Your task to perform on an android device: toggle improve location accuracy Image 0: 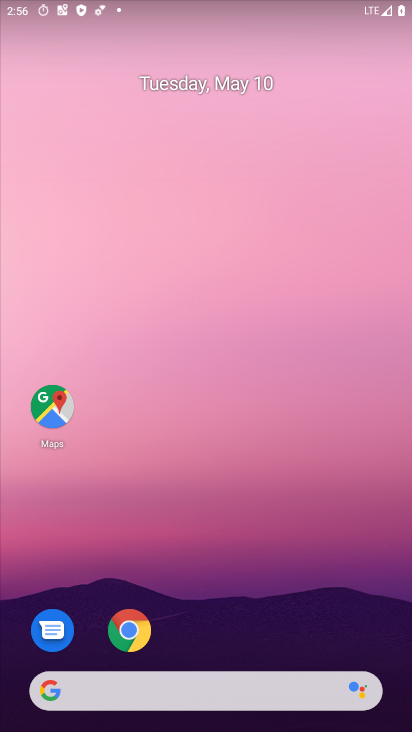
Step 0: drag from (166, 574) to (285, 176)
Your task to perform on an android device: toggle improve location accuracy Image 1: 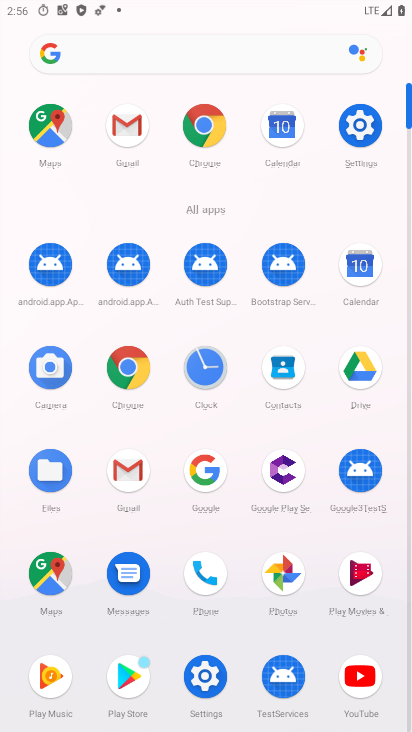
Step 1: click (209, 131)
Your task to perform on an android device: toggle improve location accuracy Image 2: 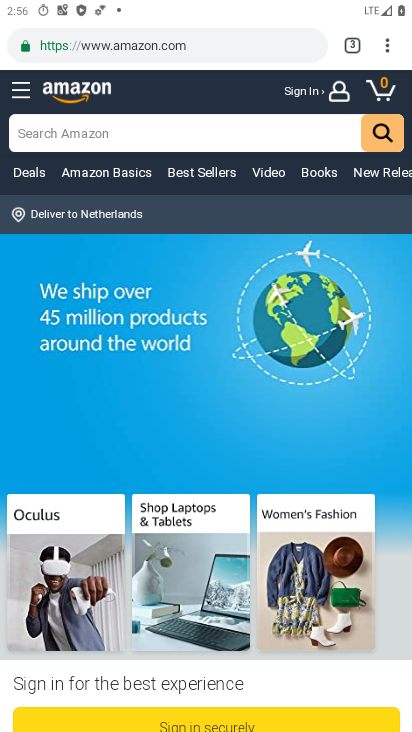
Step 2: click (388, 36)
Your task to perform on an android device: toggle improve location accuracy Image 3: 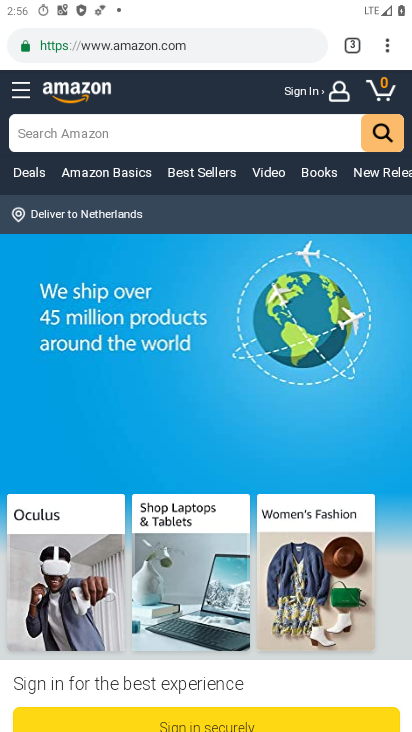
Step 3: click (379, 48)
Your task to perform on an android device: toggle improve location accuracy Image 4: 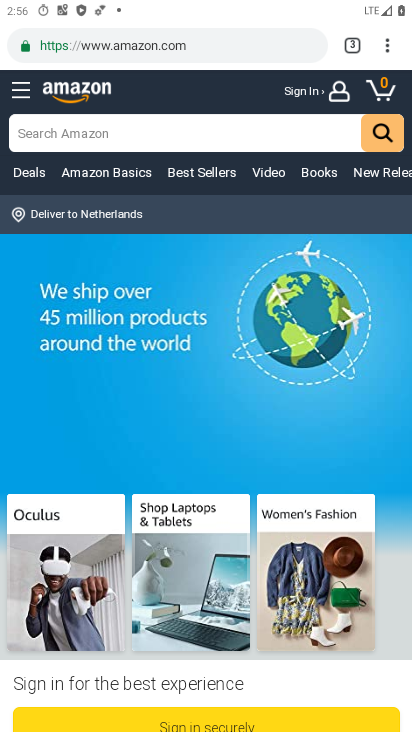
Step 4: click (391, 40)
Your task to perform on an android device: toggle improve location accuracy Image 5: 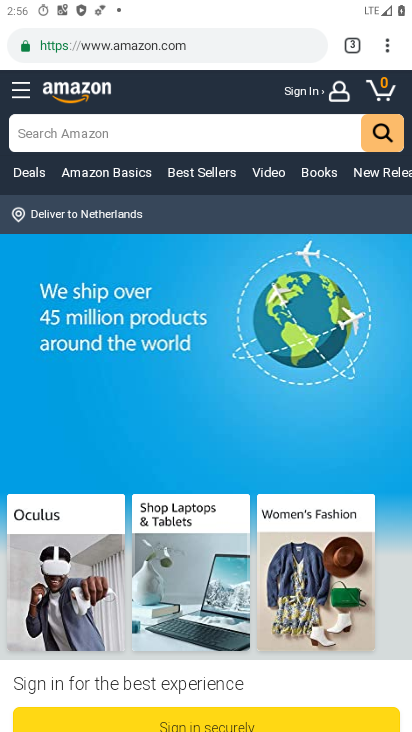
Step 5: click (391, 40)
Your task to perform on an android device: toggle improve location accuracy Image 6: 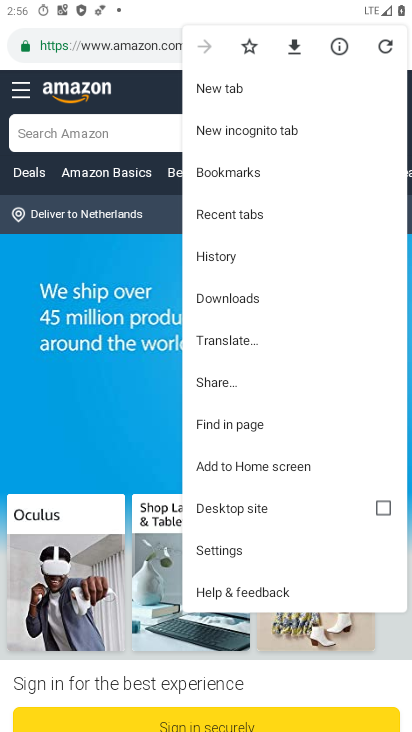
Step 6: click (270, 563)
Your task to perform on an android device: toggle improve location accuracy Image 7: 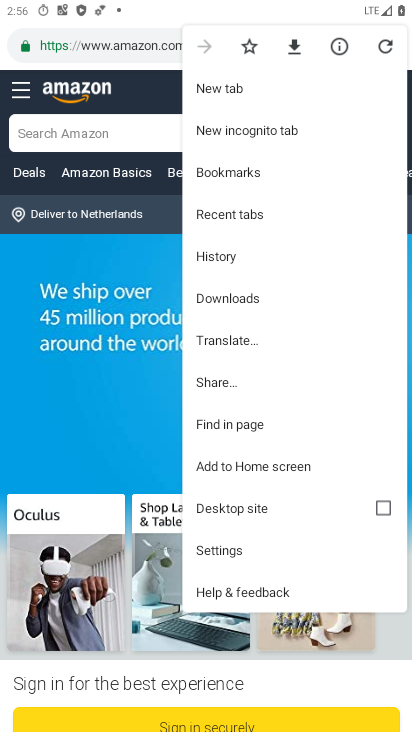
Step 7: click (278, 548)
Your task to perform on an android device: toggle improve location accuracy Image 8: 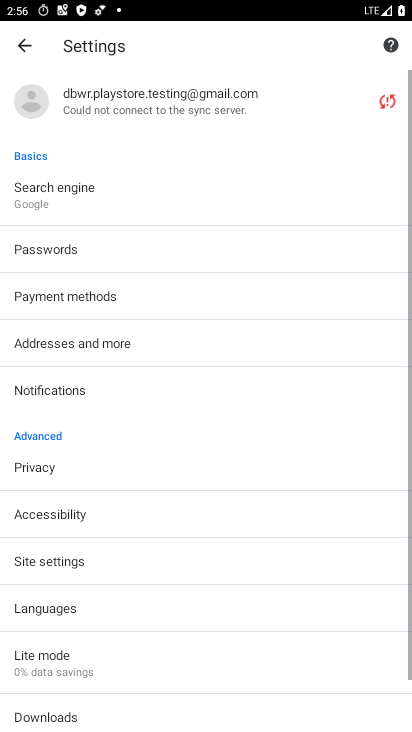
Step 8: drag from (279, 546) to (408, 124)
Your task to perform on an android device: toggle improve location accuracy Image 9: 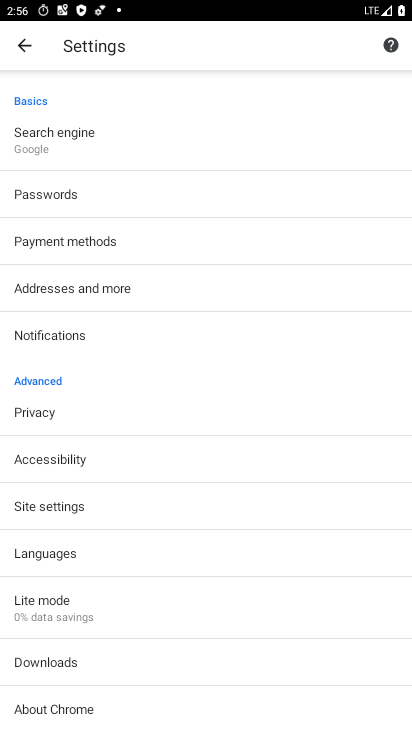
Step 9: click (261, 511)
Your task to perform on an android device: toggle improve location accuracy Image 10: 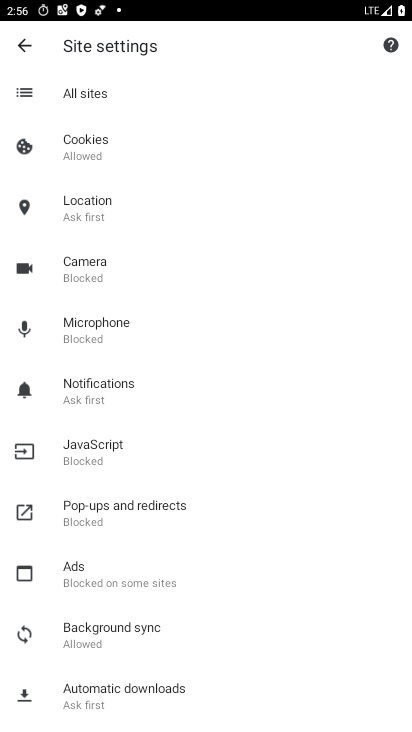
Step 10: drag from (256, 549) to (409, 54)
Your task to perform on an android device: toggle improve location accuracy Image 11: 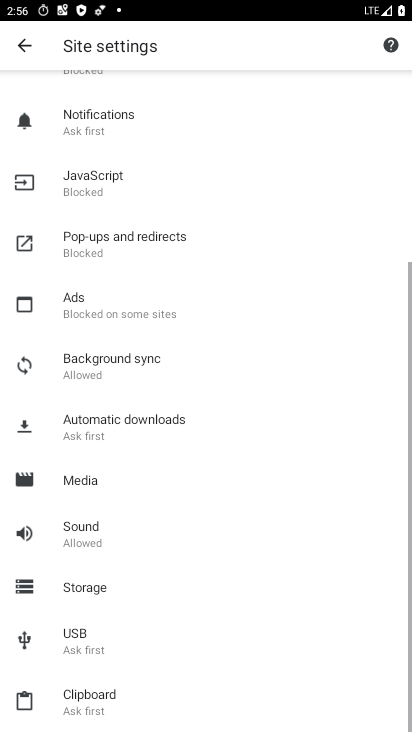
Step 11: drag from (213, 558) to (410, 94)
Your task to perform on an android device: toggle improve location accuracy Image 12: 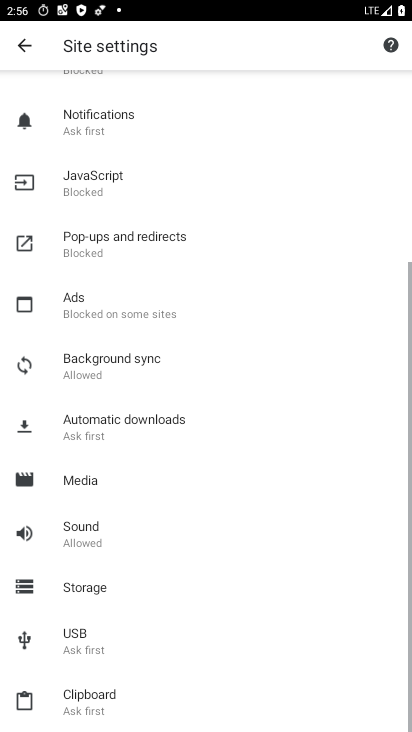
Step 12: drag from (200, 217) to (132, 613)
Your task to perform on an android device: toggle improve location accuracy Image 13: 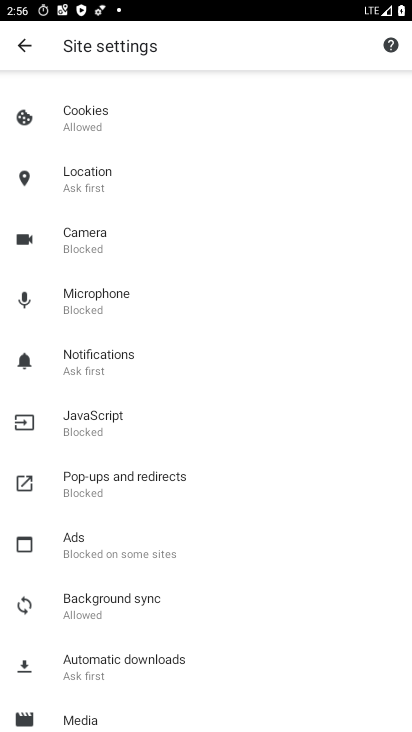
Step 13: click (135, 417)
Your task to perform on an android device: toggle improve location accuracy Image 14: 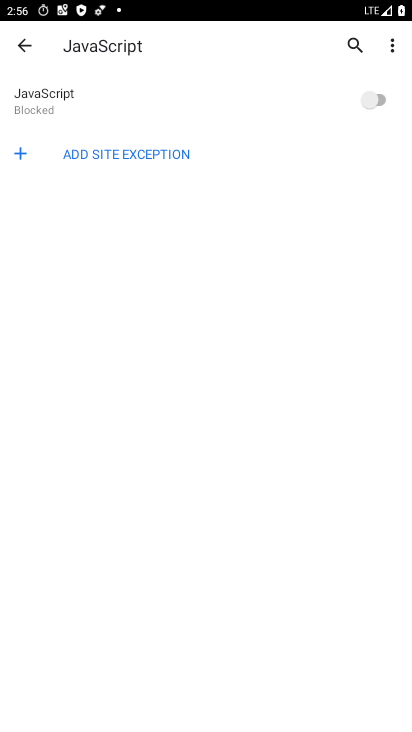
Step 14: click (32, 47)
Your task to perform on an android device: toggle improve location accuracy Image 15: 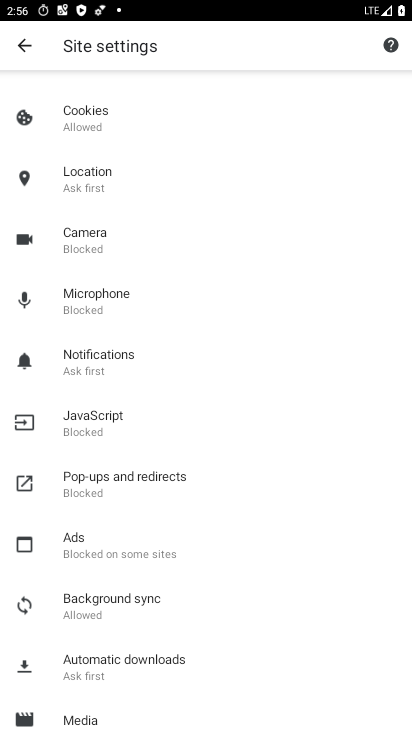
Step 15: drag from (167, 225) to (45, 561)
Your task to perform on an android device: toggle improve location accuracy Image 16: 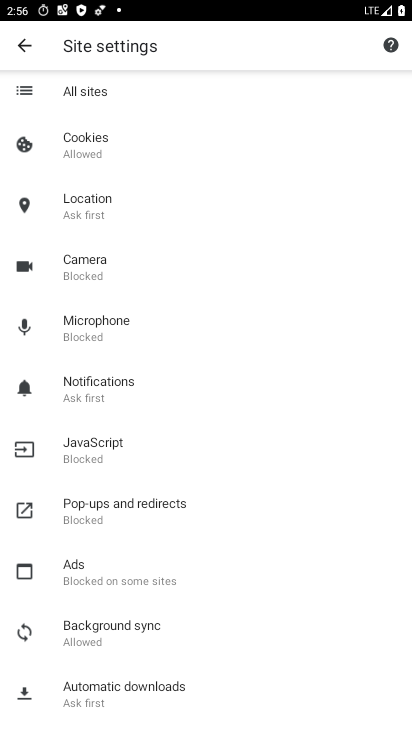
Step 16: click (168, 81)
Your task to perform on an android device: toggle improve location accuracy Image 17: 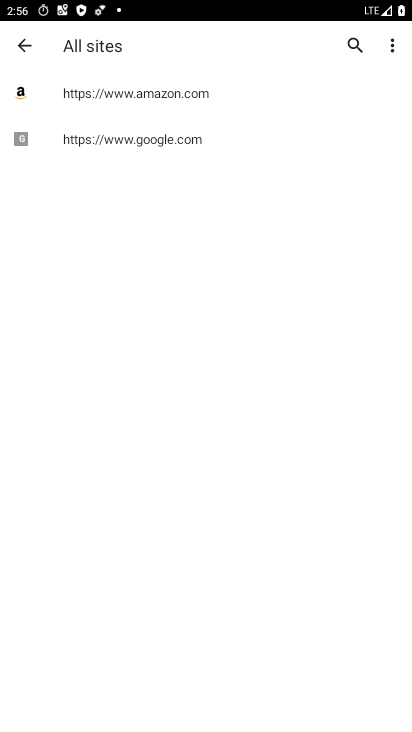
Step 17: click (19, 28)
Your task to perform on an android device: toggle improve location accuracy Image 18: 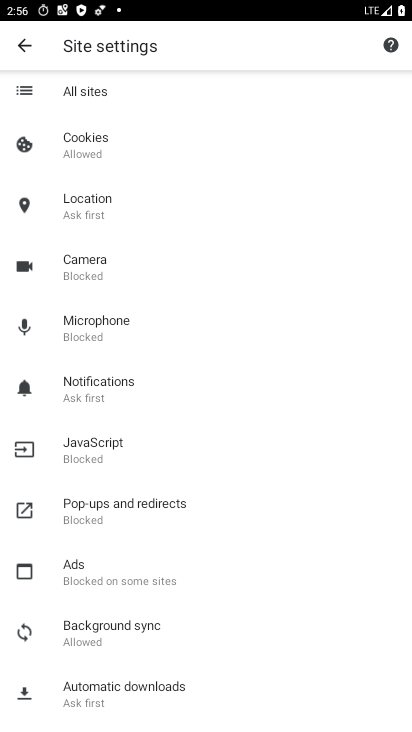
Step 18: click (41, 53)
Your task to perform on an android device: toggle improve location accuracy Image 19: 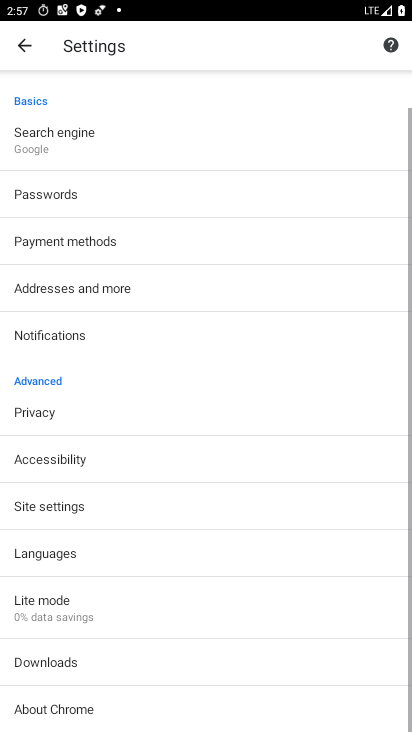
Step 19: click (41, 52)
Your task to perform on an android device: toggle improve location accuracy Image 20: 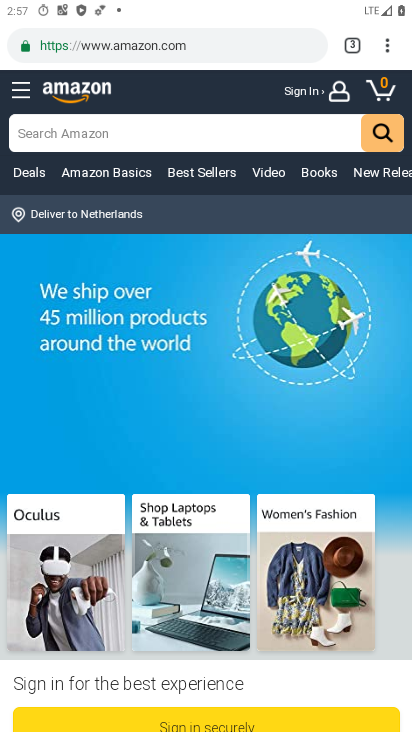
Step 20: task complete